Your task to perform on an android device: read, delete, or share a saved page in the chrome app Image 0: 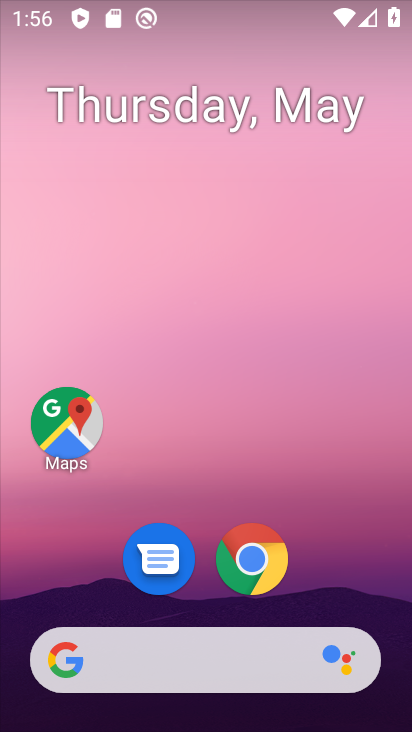
Step 0: click (239, 568)
Your task to perform on an android device: read, delete, or share a saved page in the chrome app Image 1: 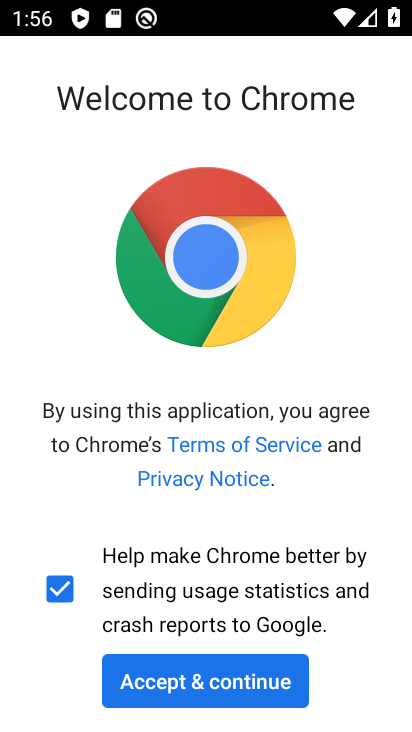
Step 1: click (226, 679)
Your task to perform on an android device: read, delete, or share a saved page in the chrome app Image 2: 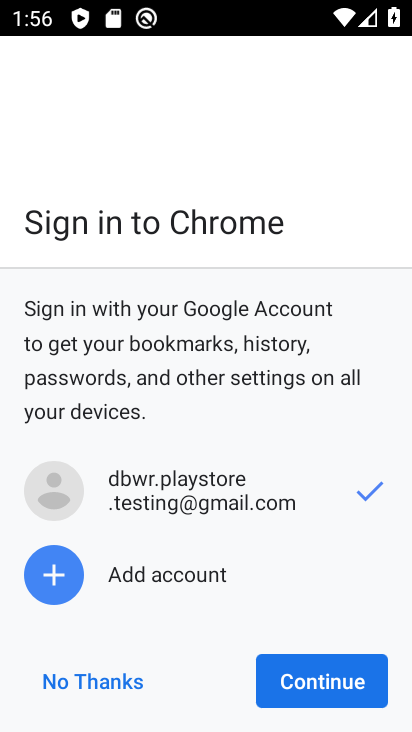
Step 2: click (301, 684)
Your task to perform on an android device: read, delete, or share a saved page in the chrome app Image 3: 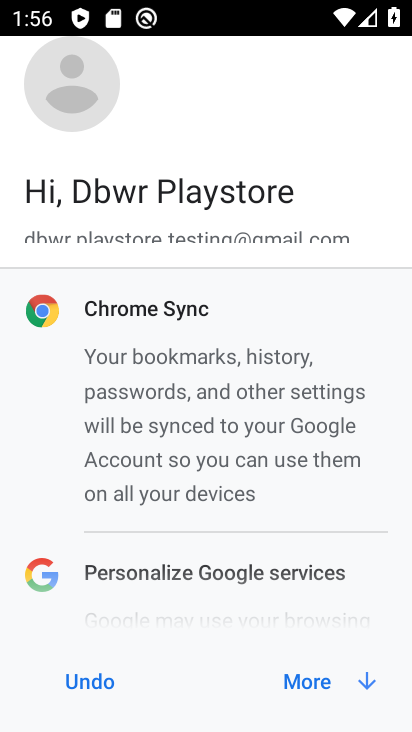
Step 3: click (308, 680)
Your task to perform on an android device: read, delete, or share a saved page in the chrome app Image 4: 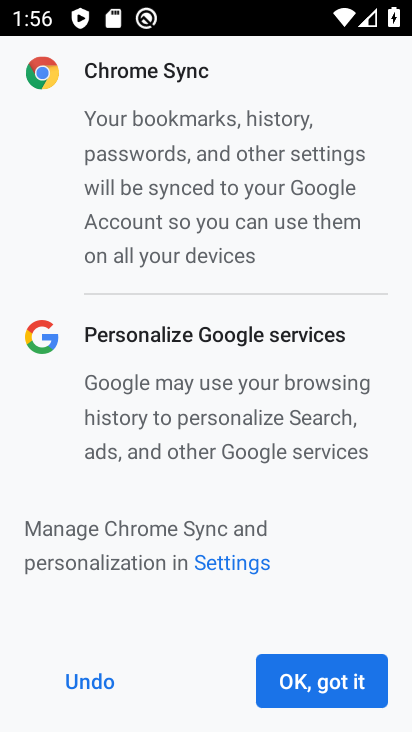
Step 4: click (316, 677)
Your task to perform on an android device: read, delete, or share a saved page in the chrome app Image 5: 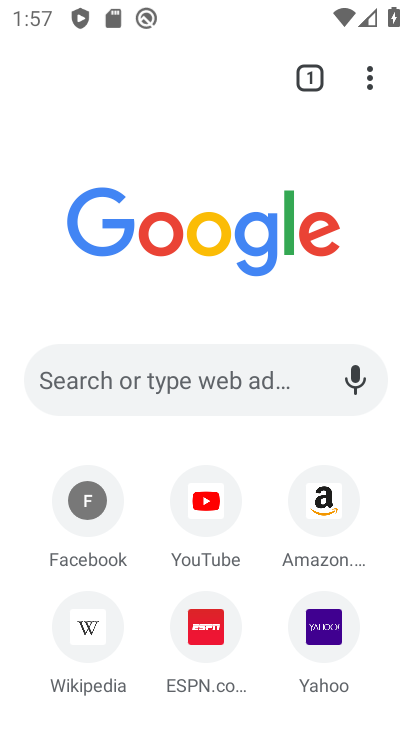
Step 5: drag from (360, 76) to (108, 516)
Your task to perform on an android device: read, delete, or share a saved page in the chrome app Image 6: 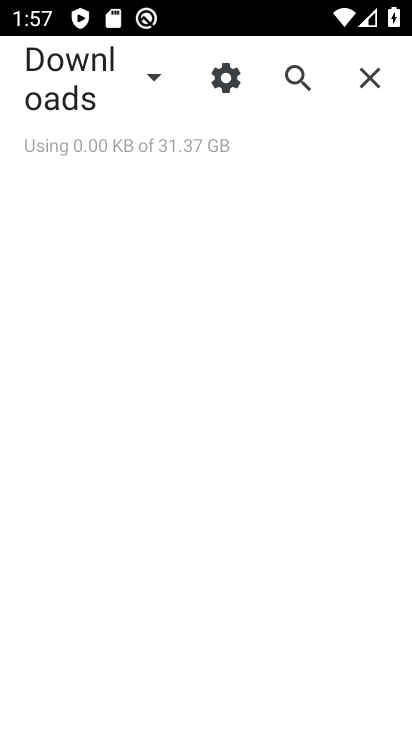
Step 6: click (154, 86)
Your task to perform on an android device: read, delete, or share a saved page in the chrome app Image 7: 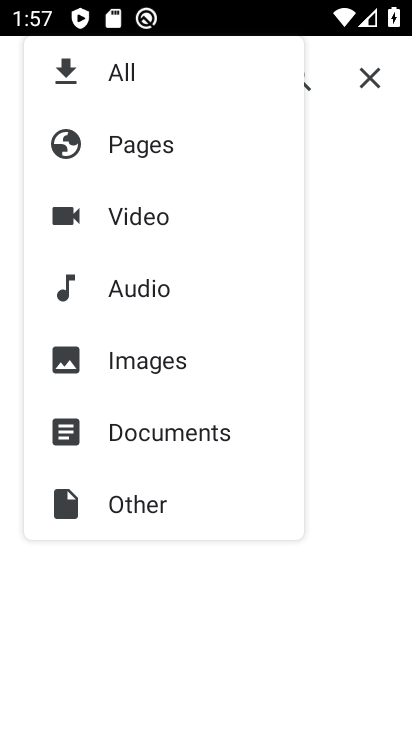
Step 7: click (148, 148)
Your task to perform on an android device: read, delete, or share a saved page in the chrome app Image 8: 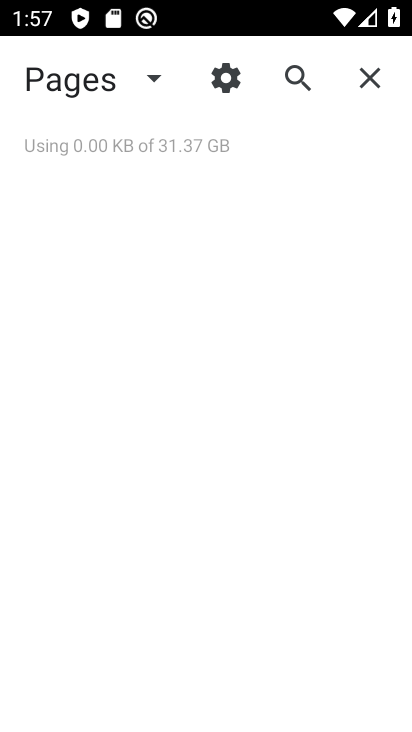
Step 8: task complete